Your task to perform on an android device: toggle wifi Image 0: 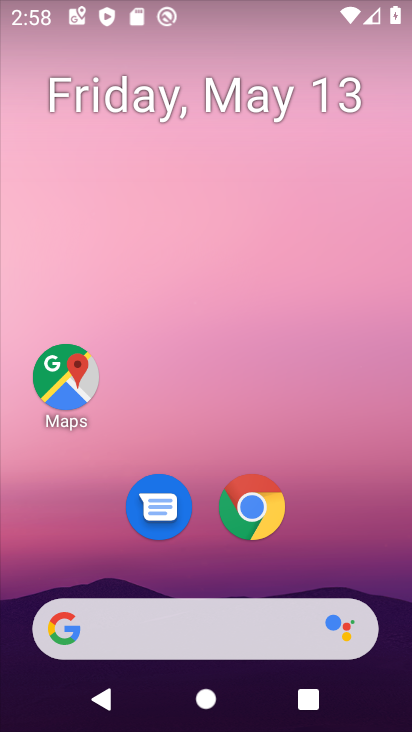
Step 0: drag from (313, 554) to (278, 40)
Your task to perform on an android device: toggle wifi Image 1: 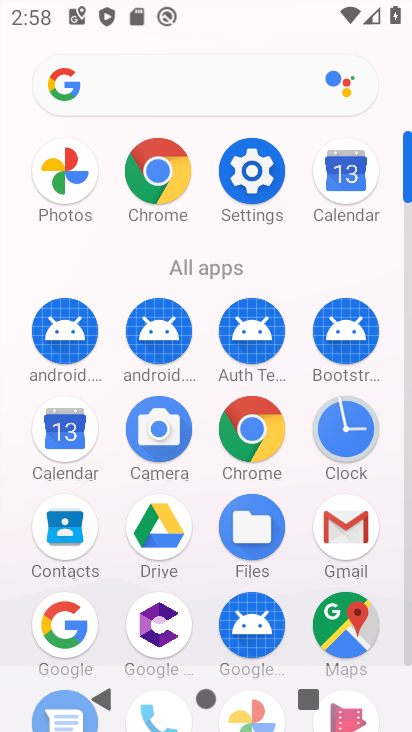
Step 1: click (254, 177)
Your task to perform on an android device: toggle wifi Image 2: 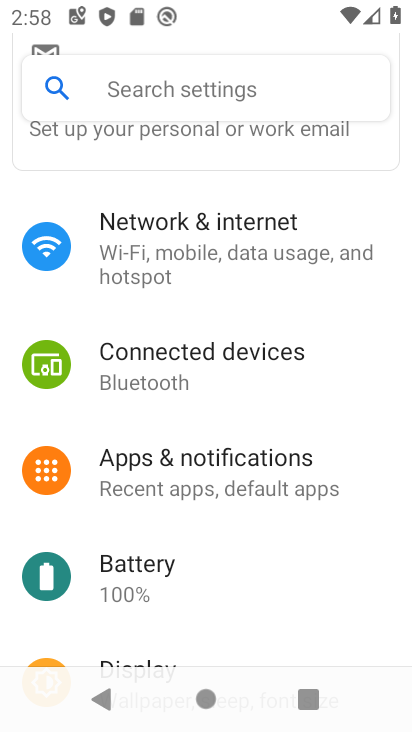
Step 2: click (201, 226)
Your task to perform on an android device: toggle wifi Image 3: 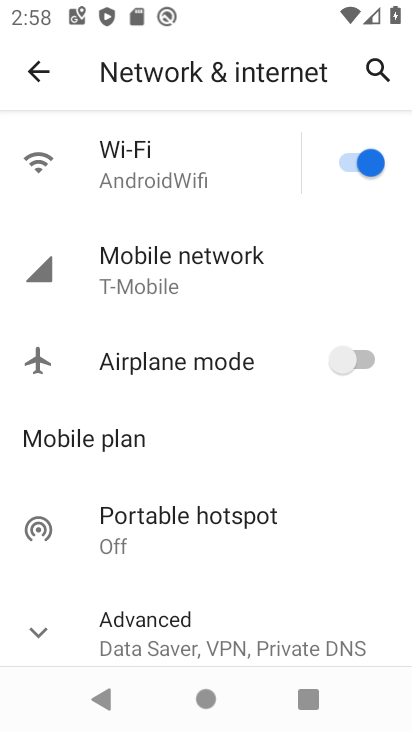
Step 3: click (370, 147)
Your task to perform on an android device: toggle wifi Image 4: 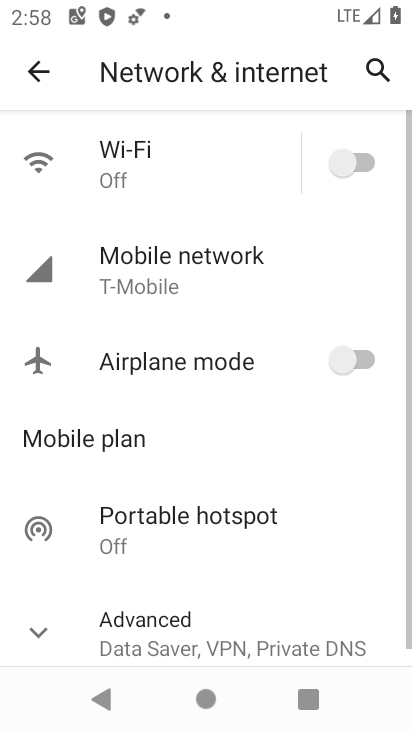
Step 4: task complete